Your task to perform on an android device: check battery use Image 0: 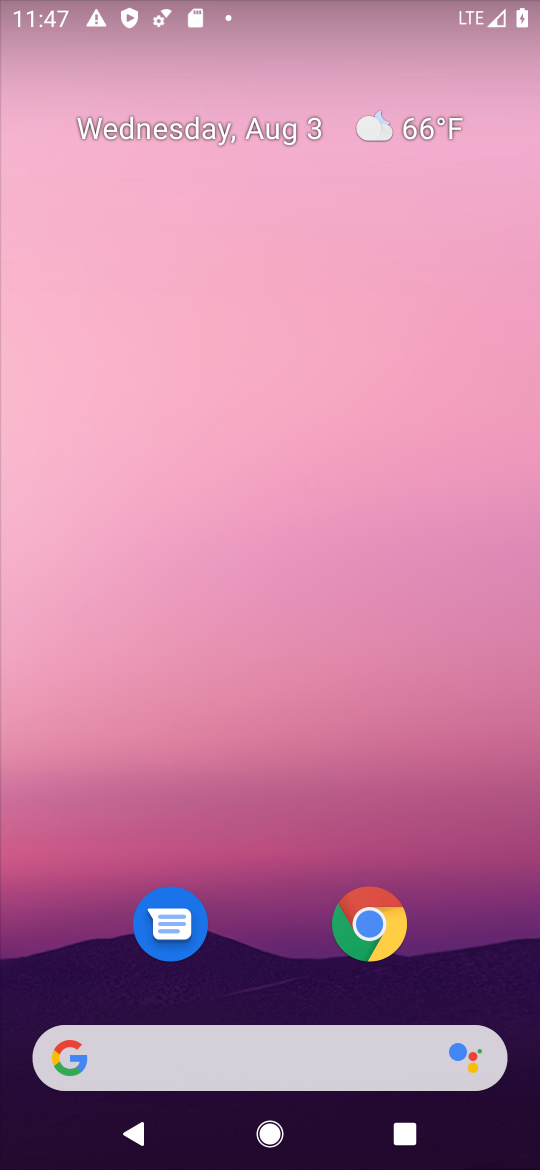
Step 0: drag from (186, 831) to (448, 52)
Your task to perform on an android device: check battery use Image 1: 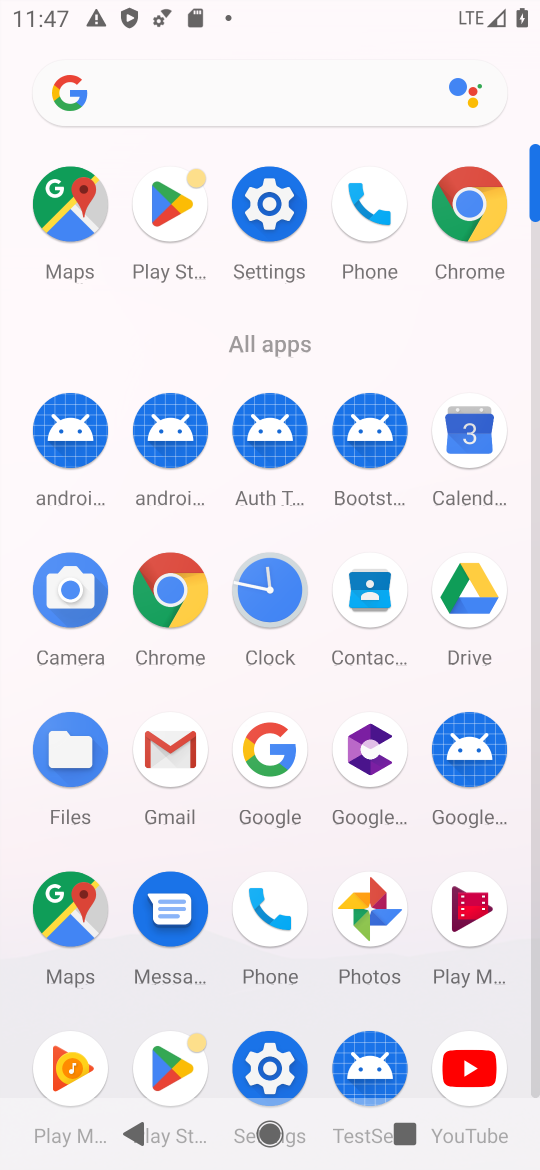
Step 1: click (269, 1066)
Your task to perform on an android device: check battery use Image 2: 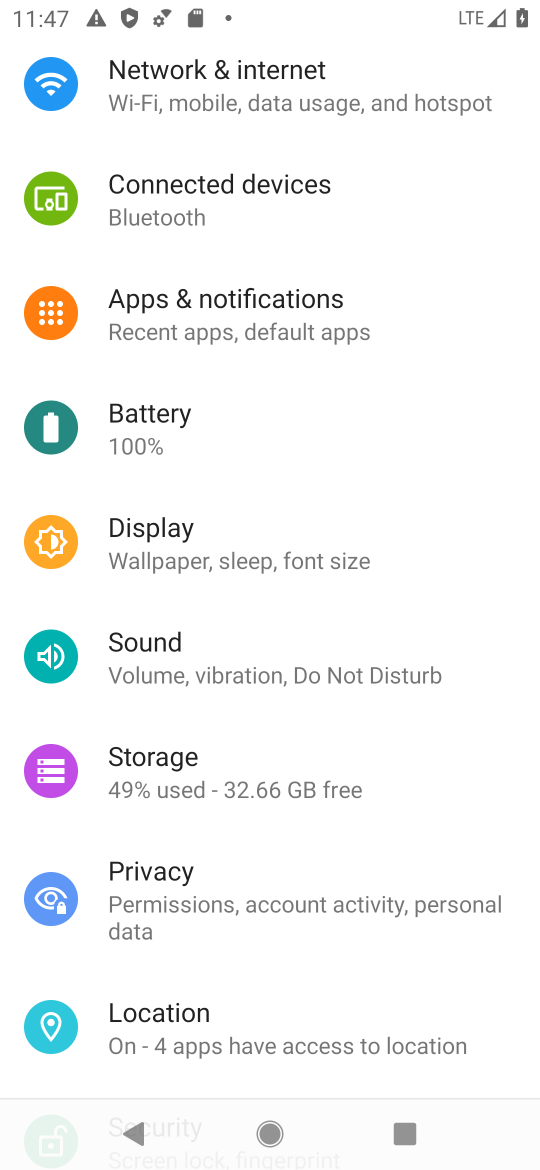
Step 2: click (252, 437)
Your task to perform on an android device: check battery use Image 3: 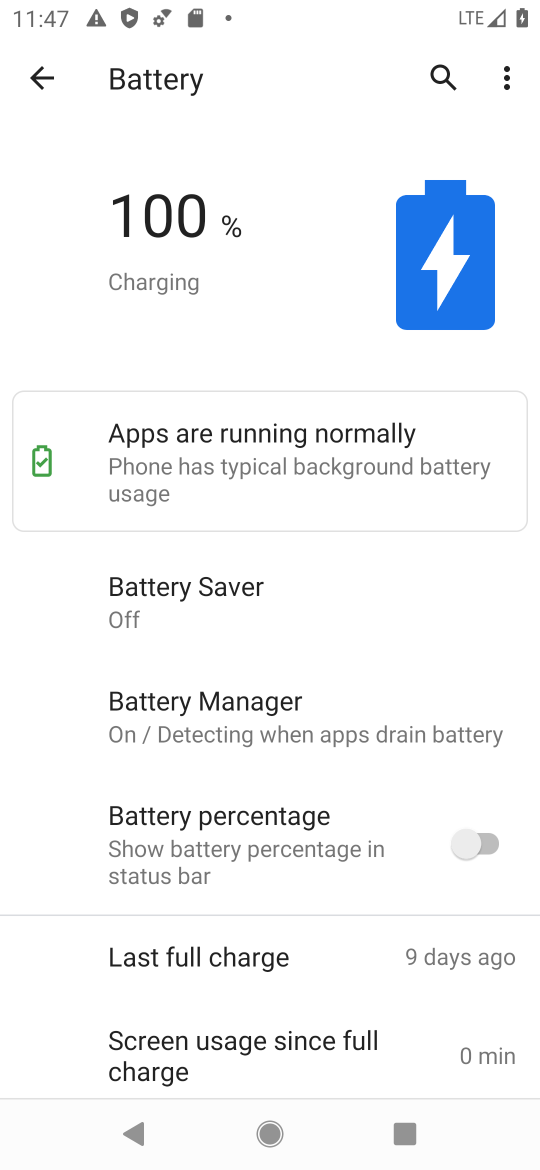
Step 3: task complete